Your task to perform on an android device: Show me recent news Image 0: 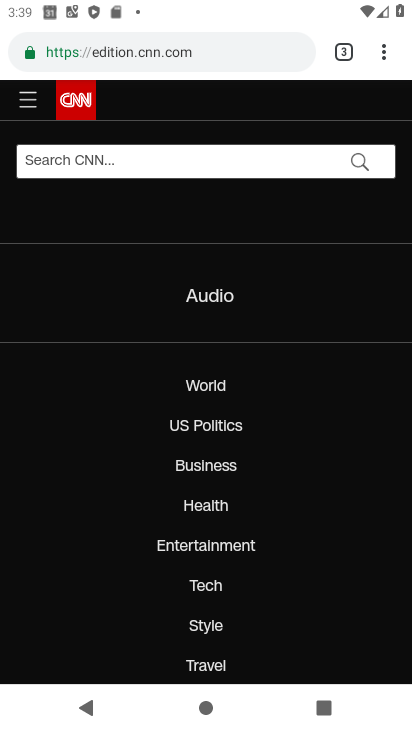
Step 0: press home button
Your task to perform on an android device: Show me recent news Image 1: 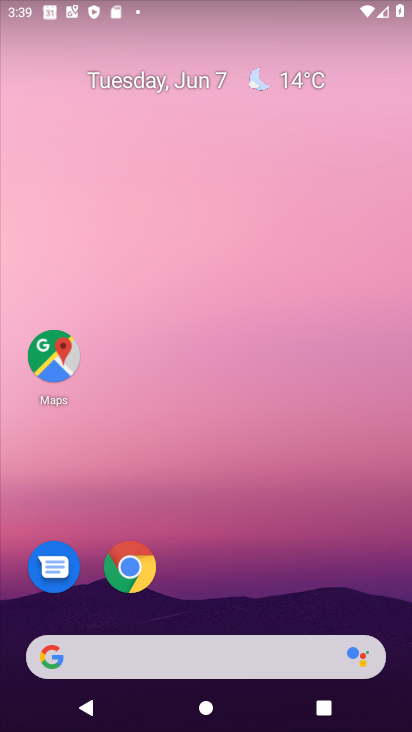
Step 1: drag from (188, 600) to (210, 189)
Your task to perform on an android device: Show me recent news Image 2: 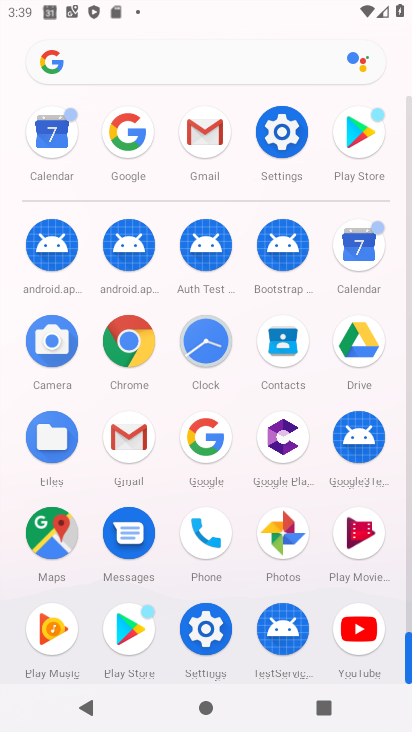
Step 2: click (138, 143)
Your task to perform on an android device: Show me recent news Image 3: 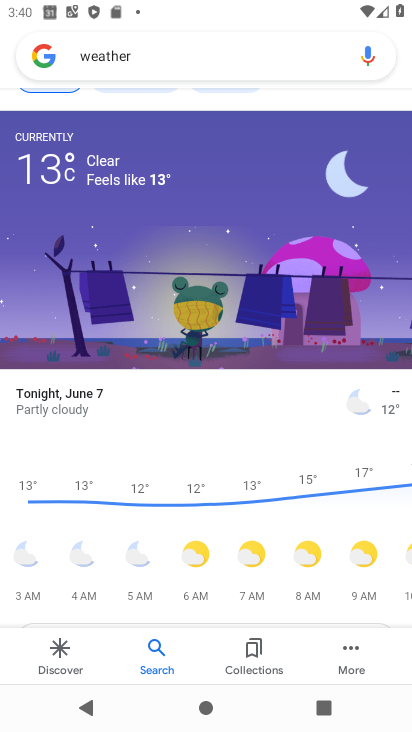
Step 3: click (166, 45)
Your task to perform on an android device: Show me recent news Image 4: 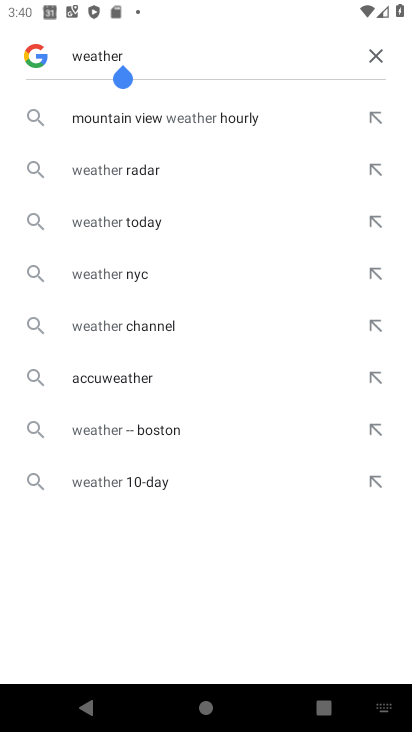
Step 4: click (376, 52)
Your task to perform on an android device: Show me recent news Image 5: 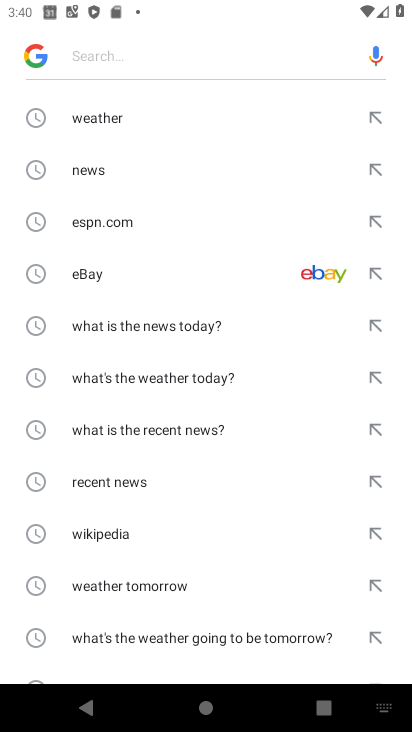
Step 5: click (98, 166)
Your task to perform on an android device: Show me recent news Image 6: 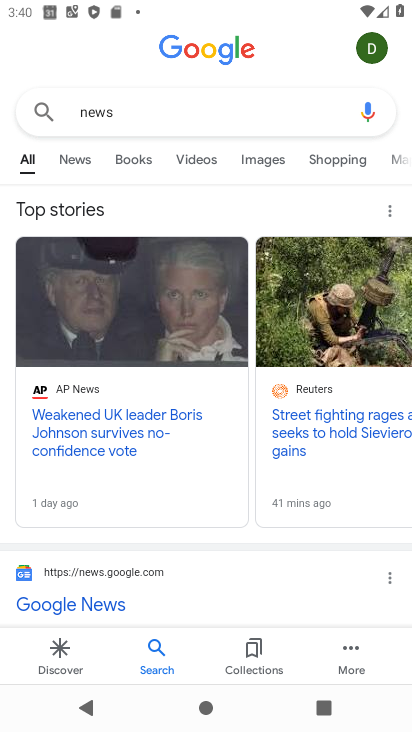
Step 6: click (86, 150)
Your task to perform on an android device: Show me recent news Image 7: 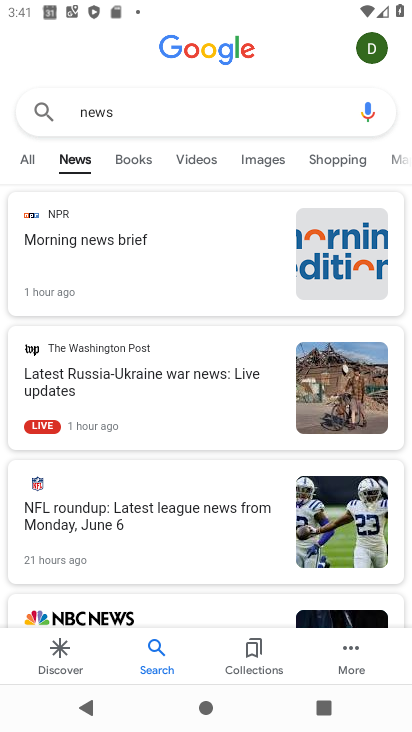
Step 7: task complete